Your task to perform on an android device: turn on translation in the chrome app Image 0: 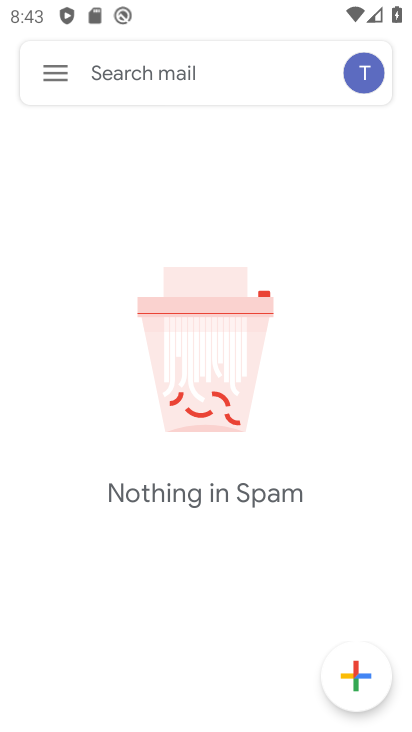
Step 0: press home button
Your task to perform on an android device: turn on translation in the chrome app Image 1: 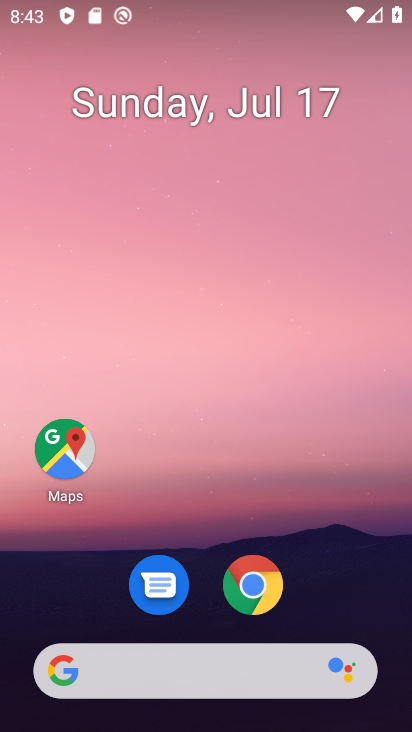
Step 1: click (258, 580)
Your task to perform on an android device: turn on translation in the chrome app Image 2: 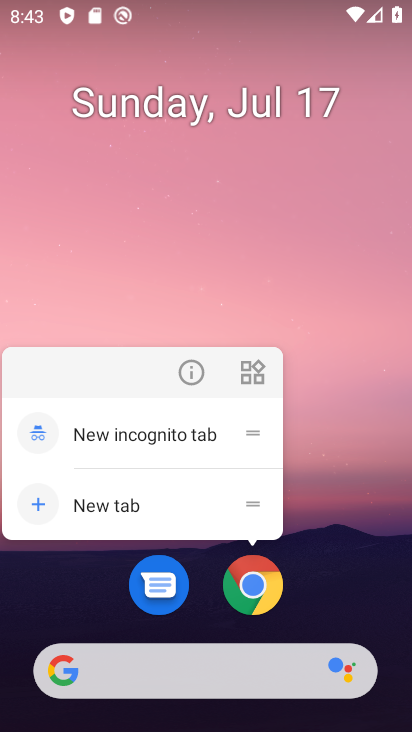
Step 2: click (258, 578)
Your task to perform on an android device: turn on translation in the chrome app Image 3: 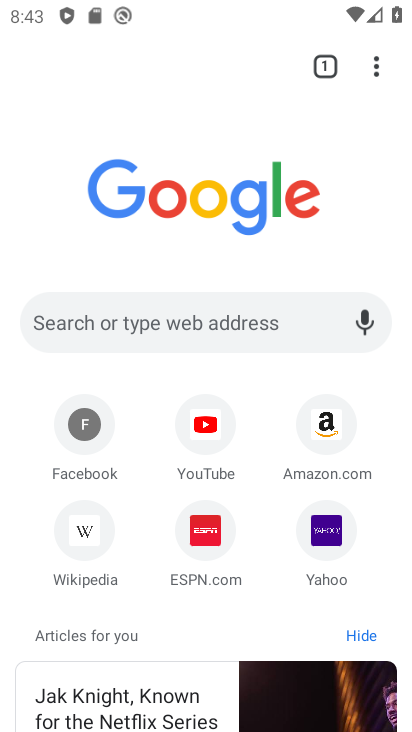
Step 3: drag from (377, 65) to (201, 568)
Your task to perform on an android device: turn on translation in the chrome app Image 4: 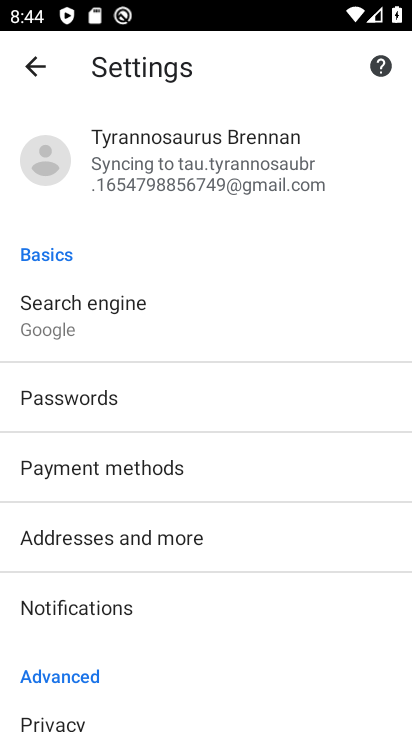
Step 4: drag from (173, 672) to (240, 199)
Your task to perform on an android device: turn on translation in the chrome app Image 5: 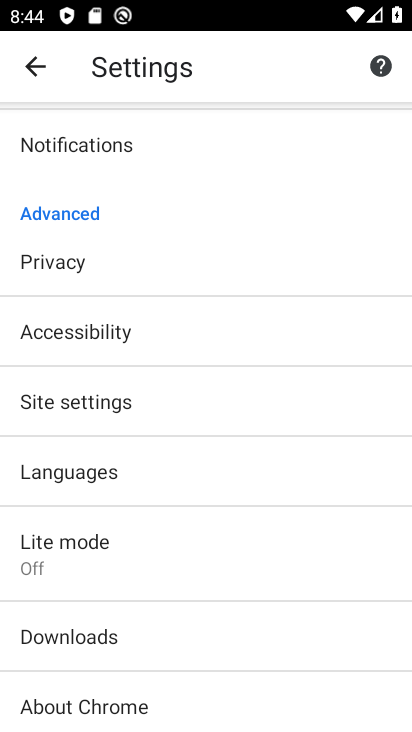
Step 5: click (71, 466)
Your task to perform on an android device: turn on translation in the chrome app Image 6: 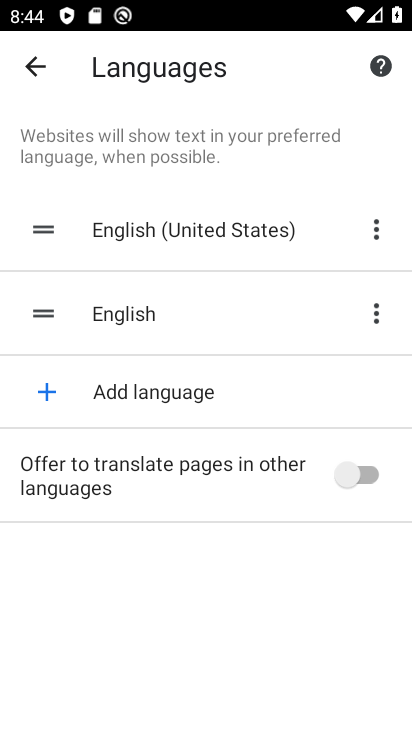
Step 6: click (380, 472)
Your task to perform on an android device: turn on translation in the chrome app Image 7: 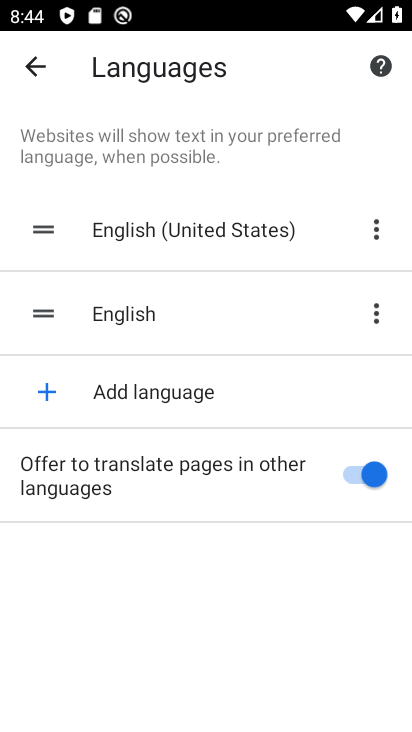
Step 7: task complete